Your task to perform on an android device: Show me popular videos on Youtube Image 0: 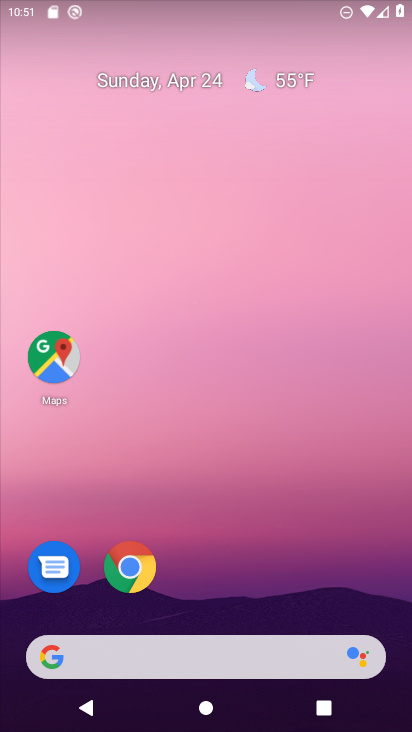
Step 0: click (397, 182)
Your task to perform on an android device: Show me popular videos on Youtube Image 1: 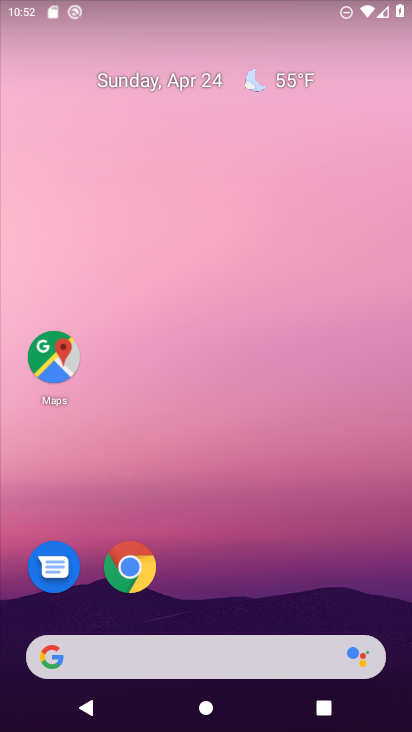
Step 1: click (348, 158)
Your task to perform on an android device: Show me popular videos on Youtube Image 2: 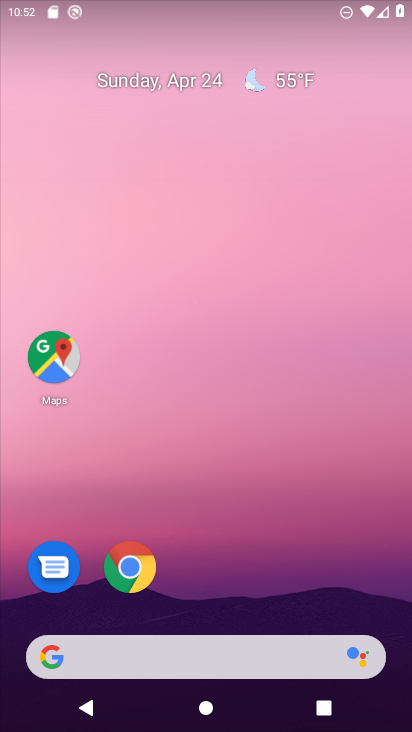
Step 2: drag from (403, 556) to (377, 247)
Your task to perform on an android device: Show me popular videos on Youtube Image 3: 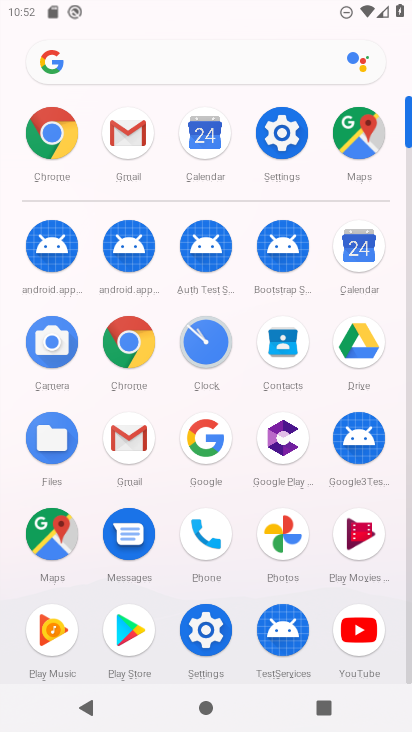
Step 3: click (360, 625)
Your task to perform on an android device: Show me popular videos on Youtube Image 4: 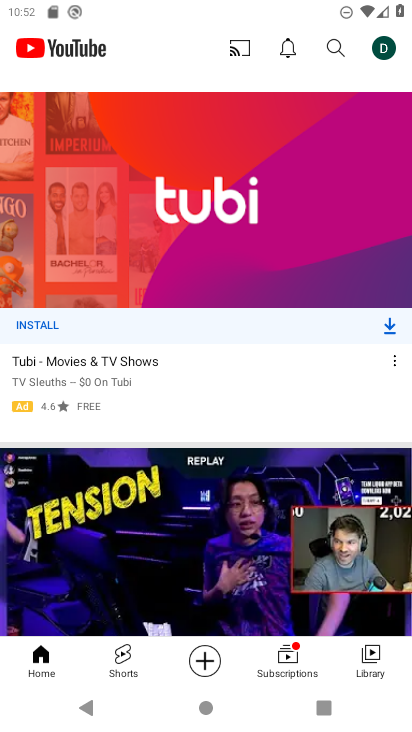
Step 4: click (361, 652)
Your task to perform on an android device: Show me popular videos on Youtube Image 5: 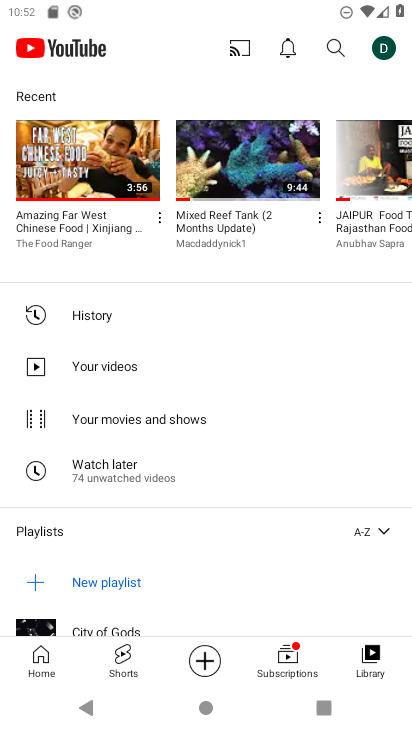
Step 5: click (328, 49)
Your task to perform on an android device: Show me popular videos on Youtube Image 6: 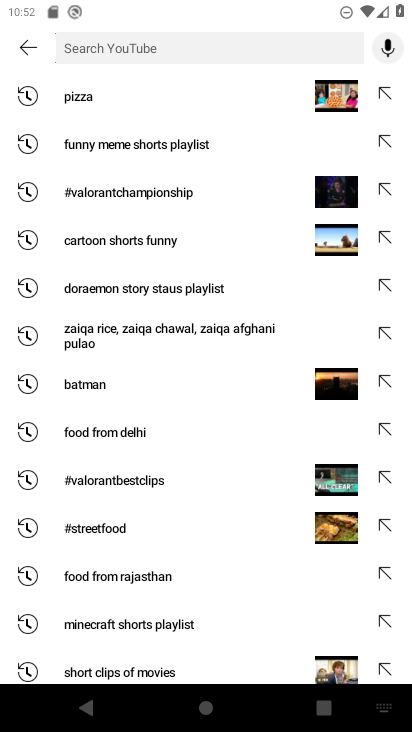
Step 6: type " popular videos on Youtube"
Your task to perform on an android device: Show me popular videos on Youtube Image 7: 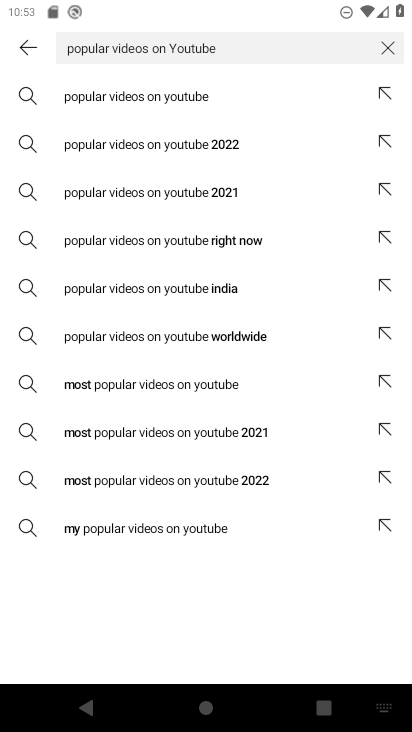
Step 7: click (103, 97)
Your task to perform on an android device: Show me popular videos on Youtube Image 8: 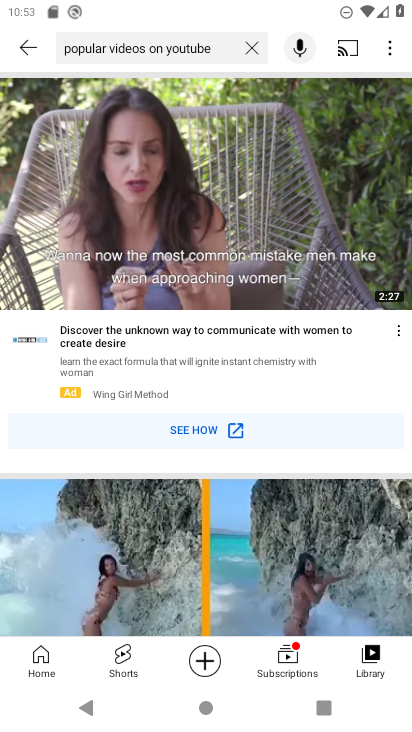
Step 8: task complete